Your task to perform on an android device: Is it going to rain tomorrow? Image 0: 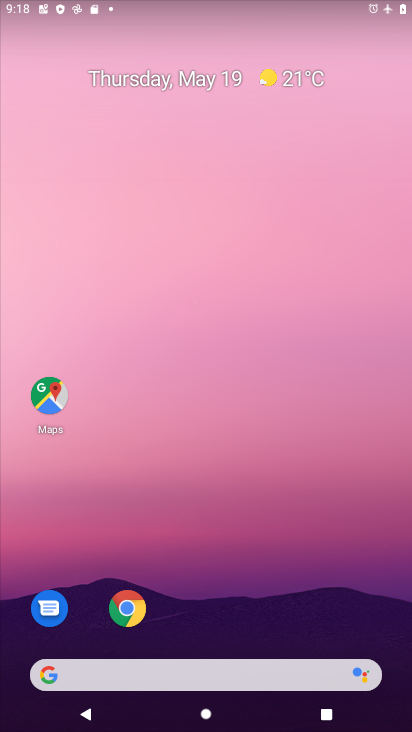
Step 0: click (179, 672)
Your task to perform on an android device: Is it going to rain tomorrow? Image 1: 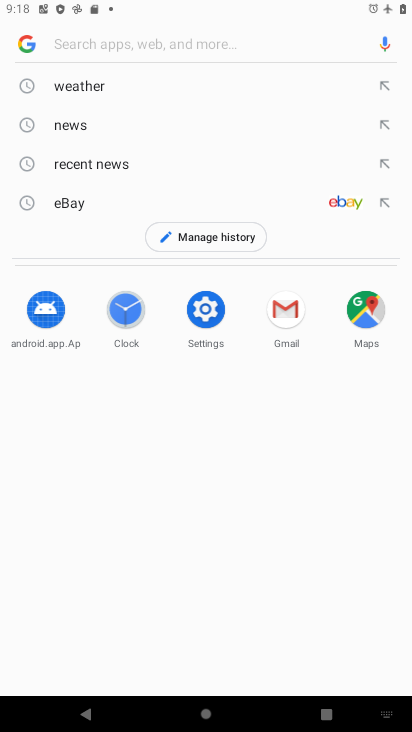
Step 1: click (179, 672)
Your task to perform on an android device: Is it going to rain tomorrow? Image 2: 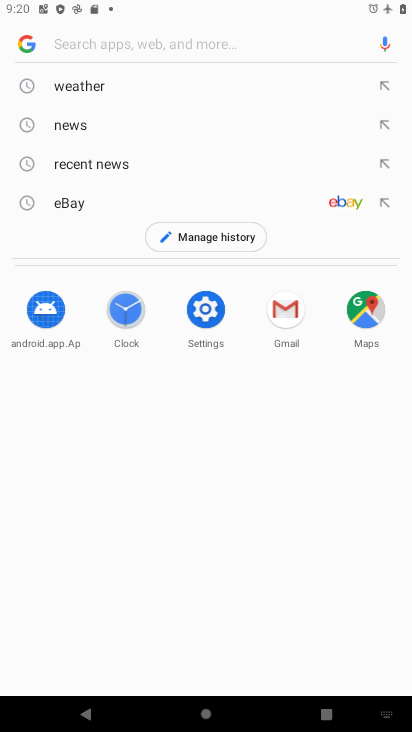
Step 2: click (61, 83)
Your task to perform on an android device: Is it going to rain tomorrow? Image 3: 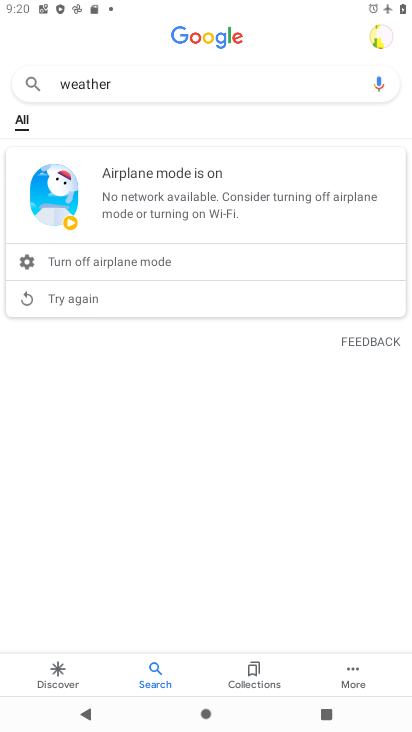
Step 3: task complete